Your task to perform on an android device: add a label to a message in the gmail app Image 0: 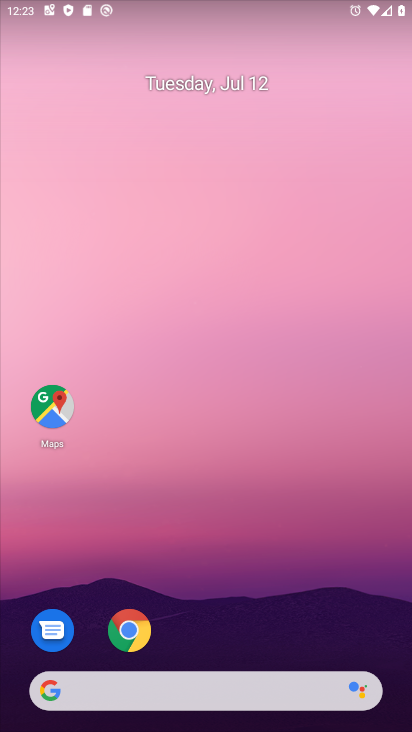
Step 0: drag from (196, 697) to (248, 172)
Your task to perform on an android device: add a label to a message in the gmail app Image 1: 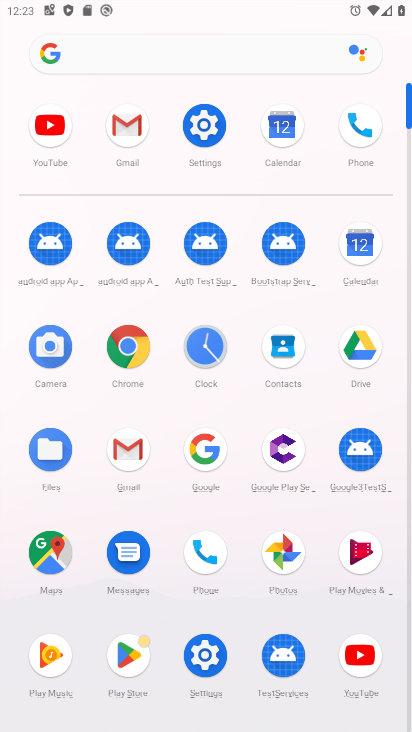
Step 1: click (126, 126)
Your task to perform on an android device: add a label to a message in the gmail app Image 2: 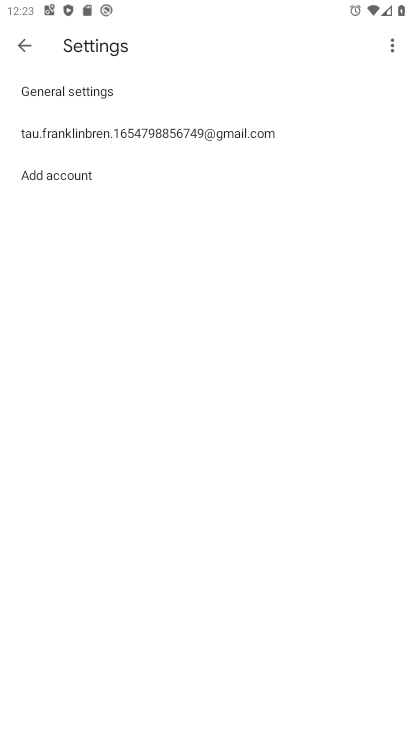
Step 2: press back button
Your task to perform on an android device: add a label to a message in the gmail app Image 3: 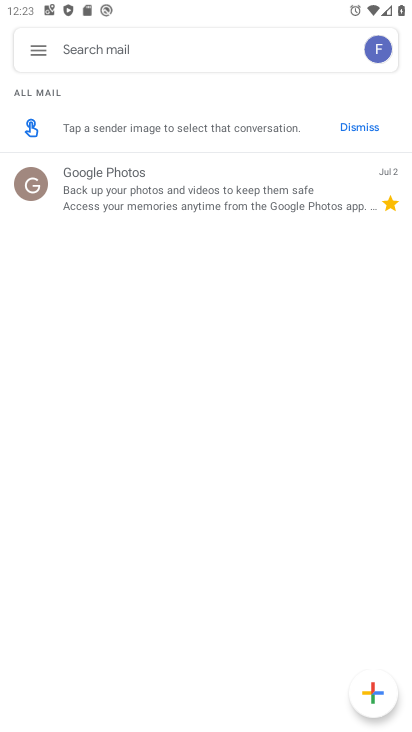
Step 3: click (201, 205)
Your task to perform on an android device: add a label to a message in the gmail app Image 4: 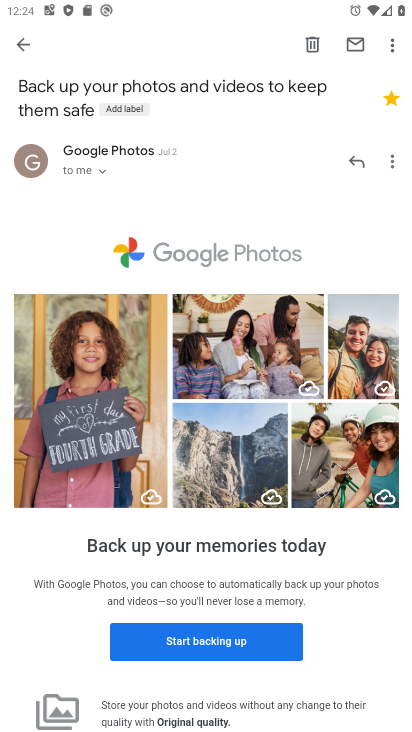
Step 4: task complete